Your task to perform on an android device: Open Android settings Image 0: 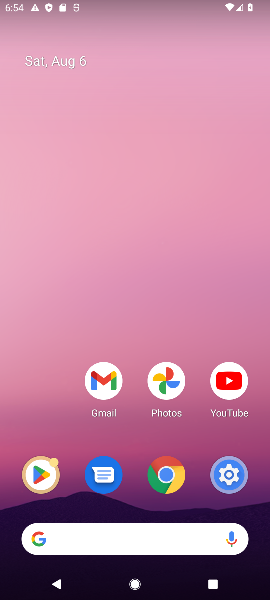
Step 0: drag from (135, 437) to (103, 196)
Your task to perform on an android device: Open Android settings Image 1: 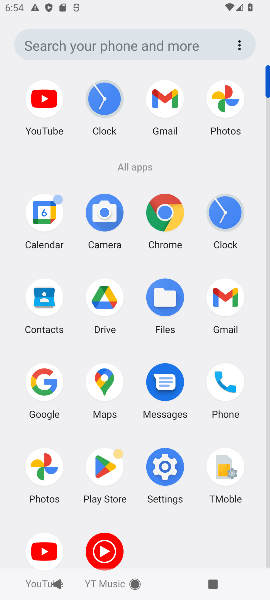
Step 1: click (157, 475)
Your task to perform on an android device: Open Android settings Image 2: 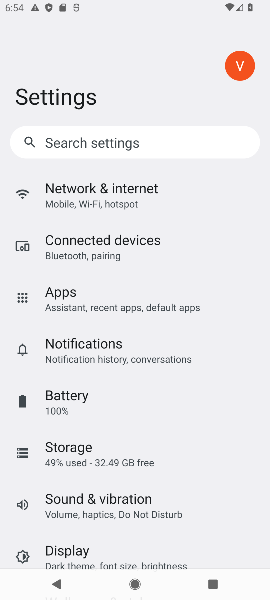
Step 2: task complete